Your task to perform on an android device: uninstall "WhatsApp Messenger" Image 0: 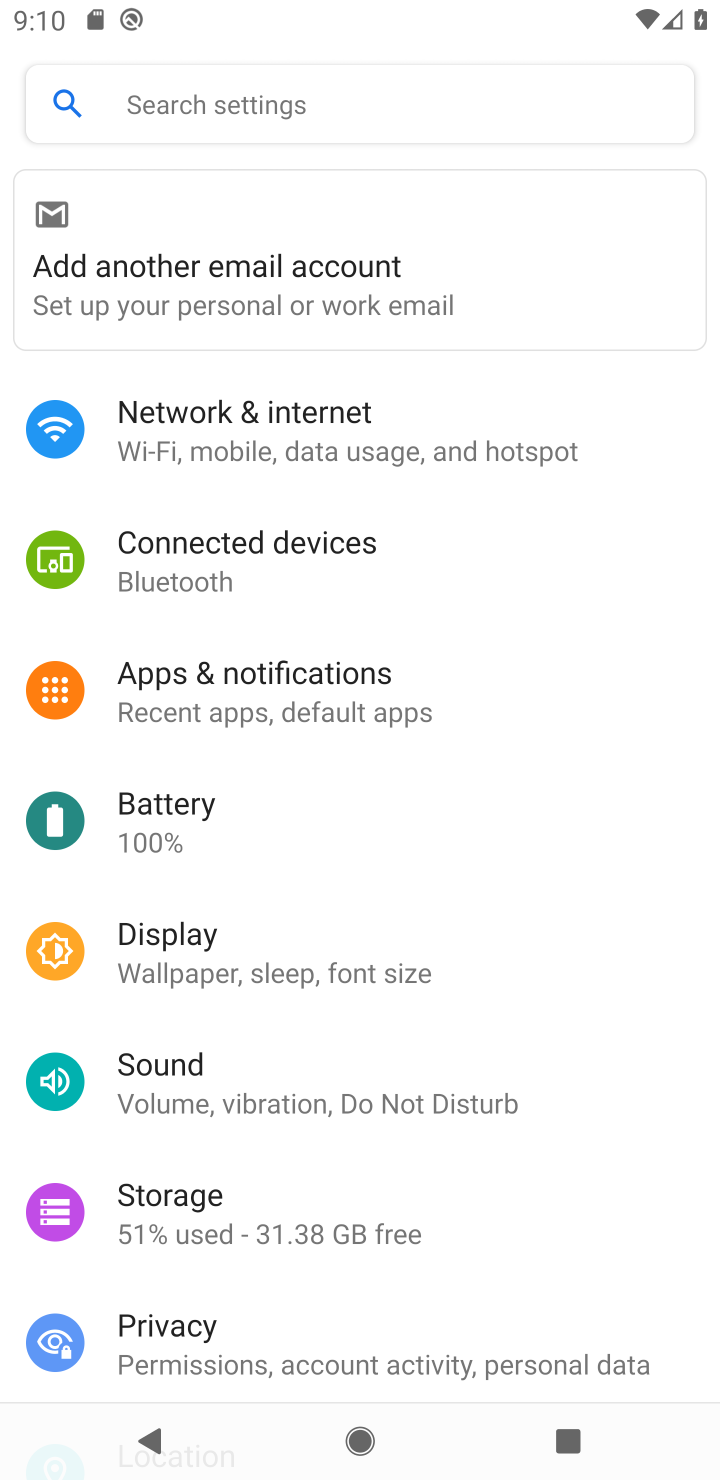
Step 0: press back button
Your task to perform on an android device: uninstall "WhatsApp Messenger" Image 1: 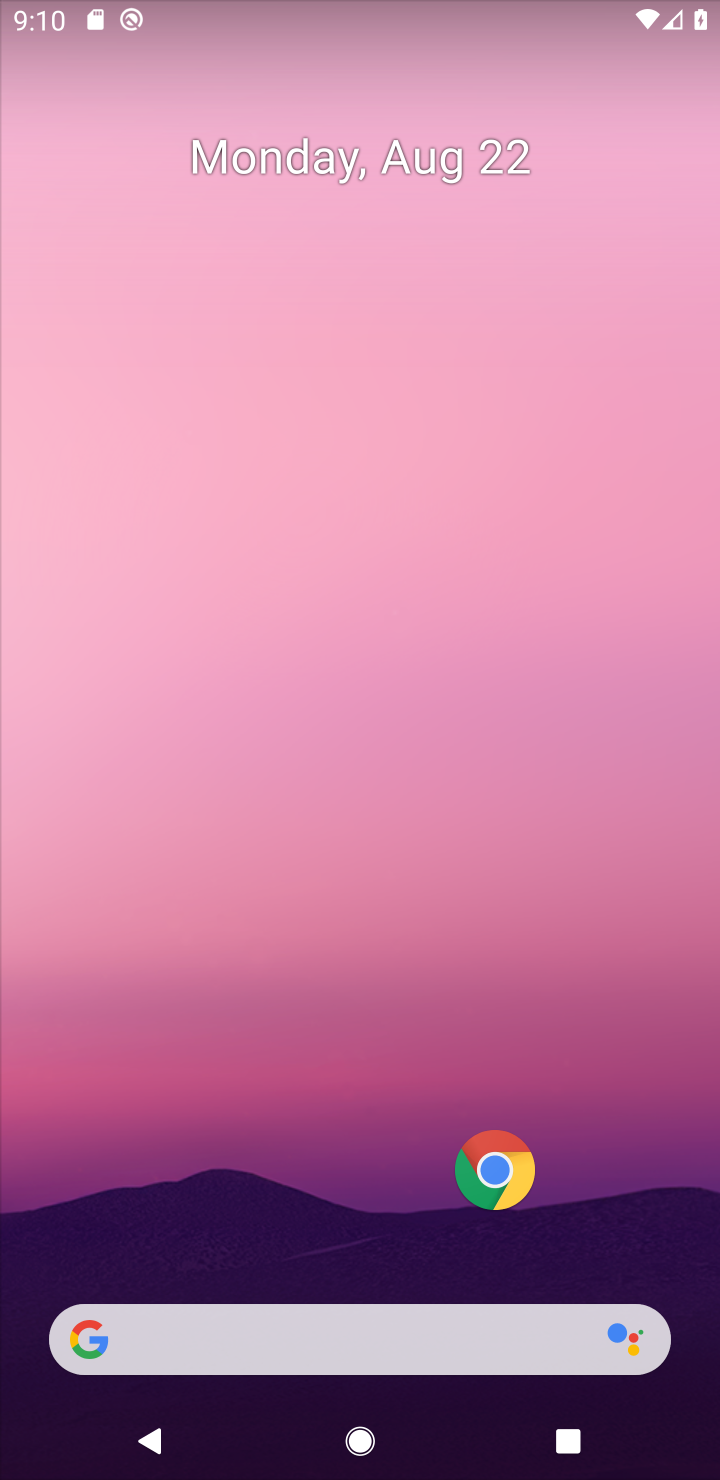
Step 1: drag from (232, 1121) to (365, 39)
Your task to perform on an android device: uninstall "WhatsApp Messenger" Image 2: 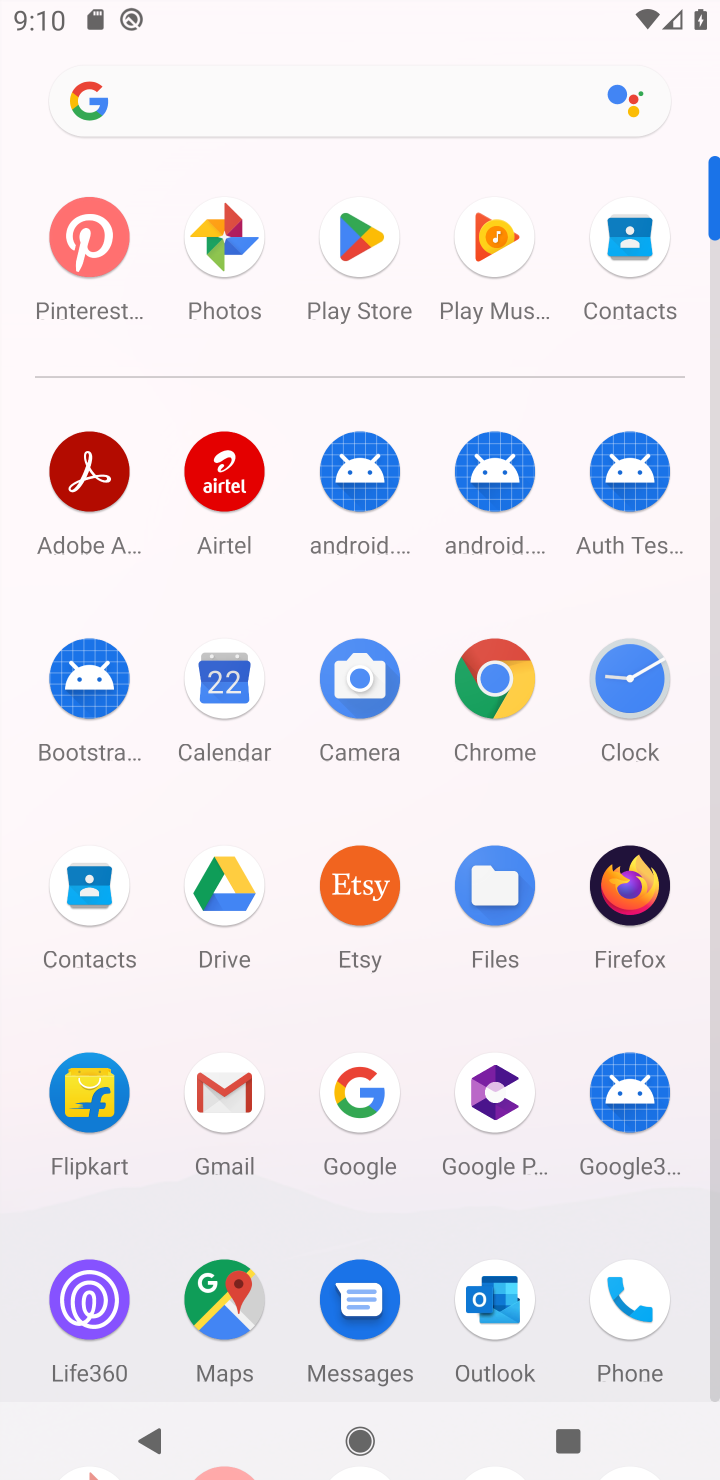
Step 2: click (358, 242)
Your task to perform on an android device: uninstall "WhatsApp Messenger" Image 3: 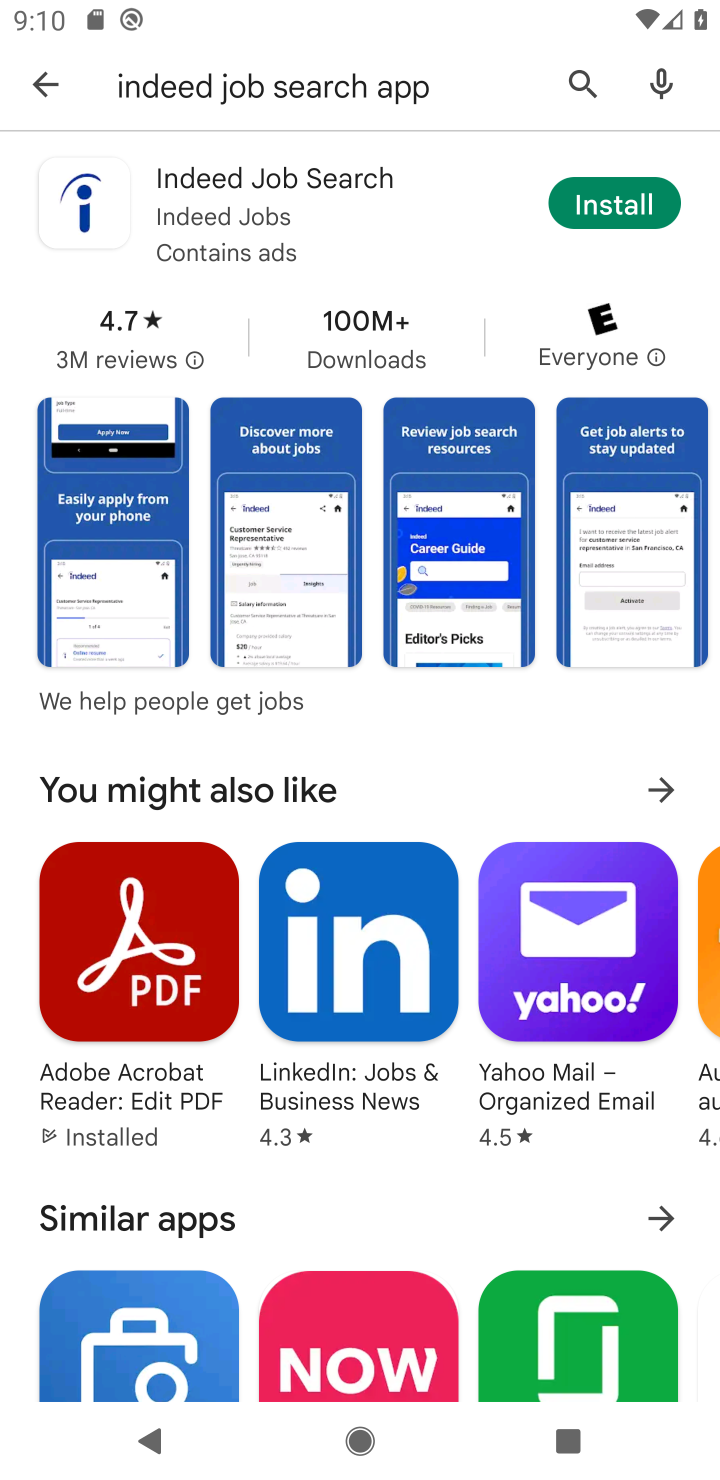
Step 3: click (584, 80)
Your task to perform on an android device: uninstall "WhatsApp Messenger" Image 4: 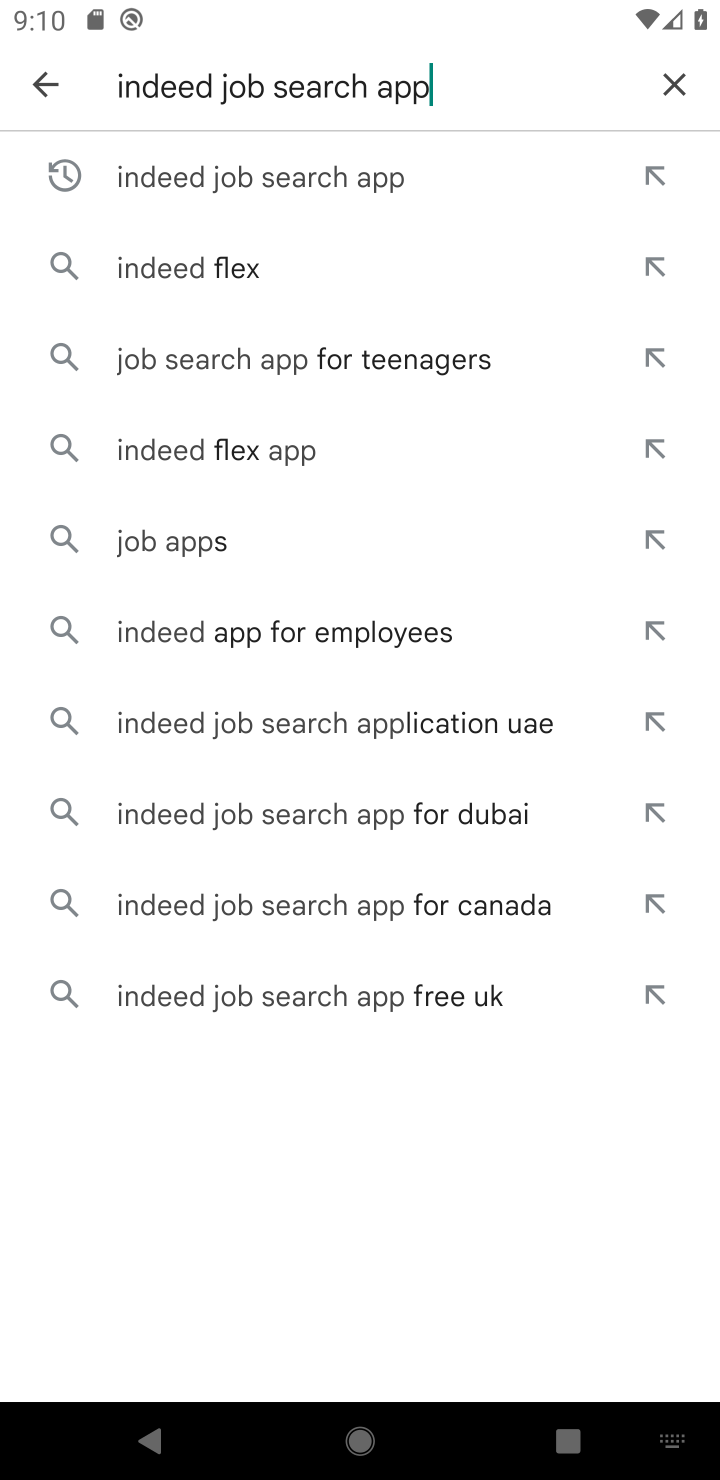
Step 4: click (677, 73)
Your task to perform on an android device: uninstall "WhatsApp Messenger" Image 5: 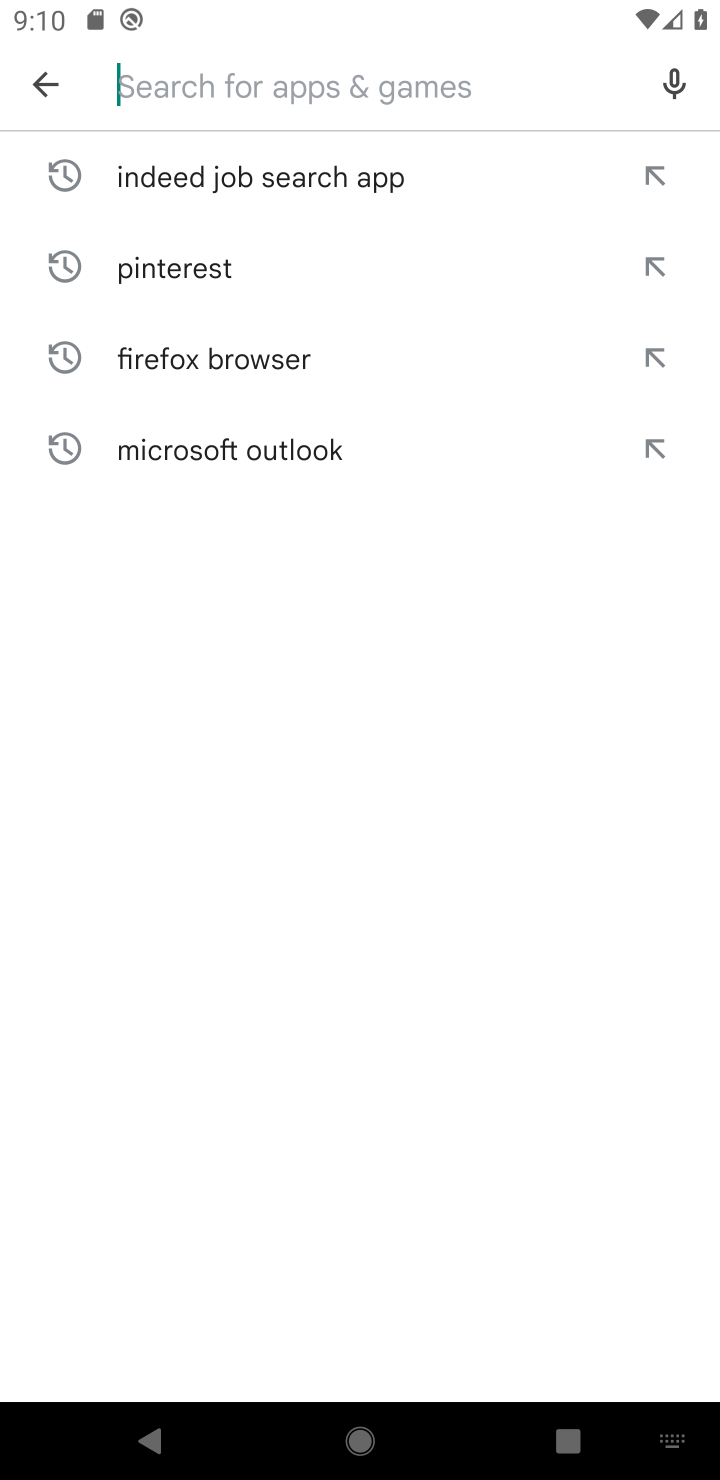
Step 5: click (323, 85)
Your task to perform on an android device: uninstall "WhatsApp Messenger" Image 6: 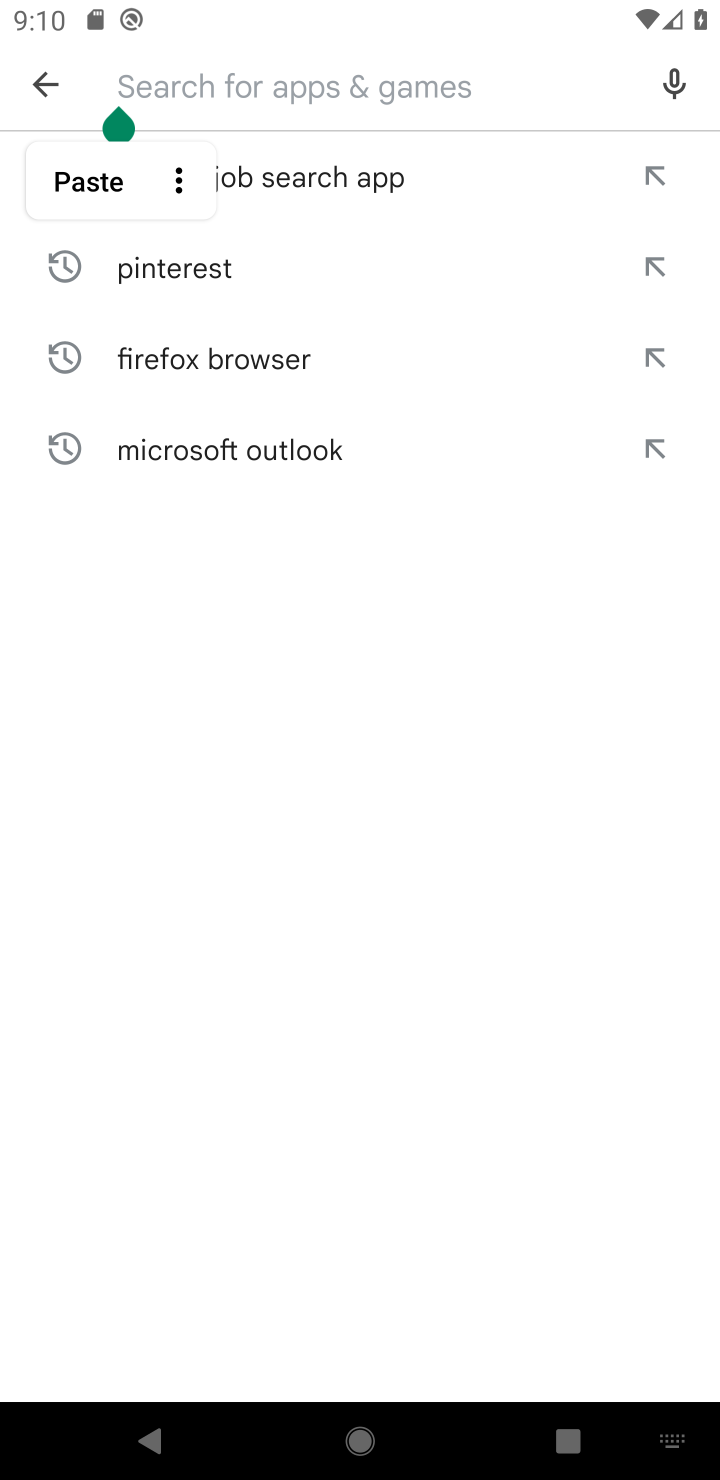
Step 6: type "WhatsApp Messenger"
Your task to perform on an android device: uninstall "WhatsApp Messenger" Image 7: 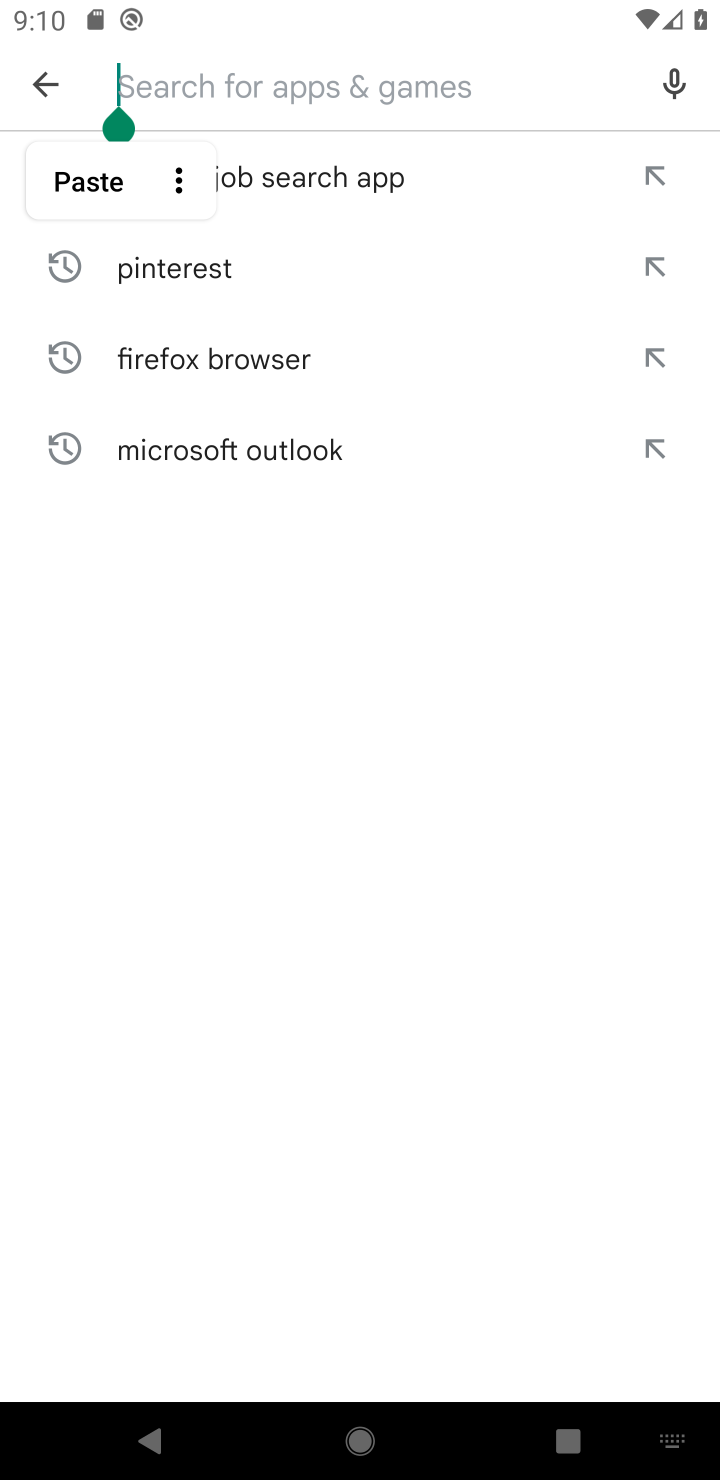
Step 7: click (510, 990)
Your task to perform on an android device: uninstall "WhatsApp Messenger" Image 8: 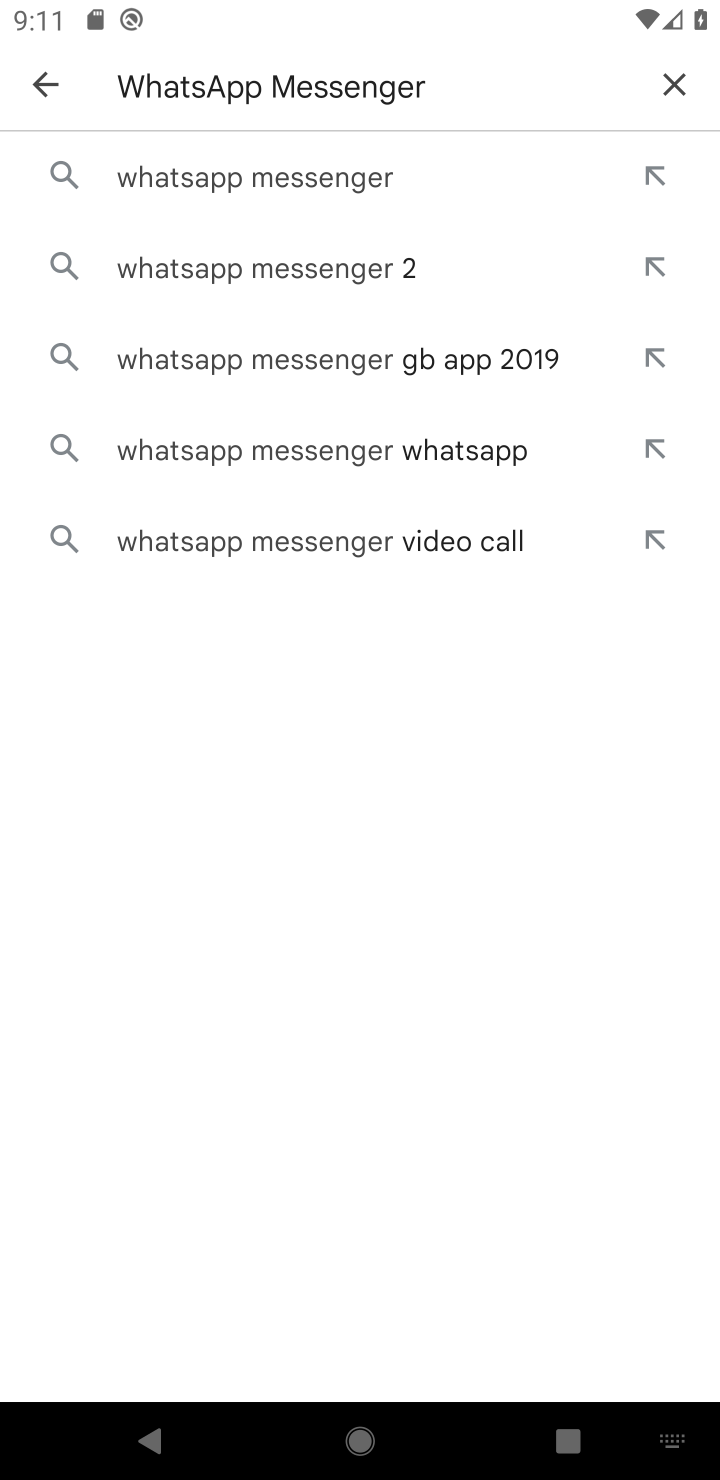
Step 8: click (365, 183)
Your task to perform on an android device: uninstall "WhatsApp Messenger" Image 9: 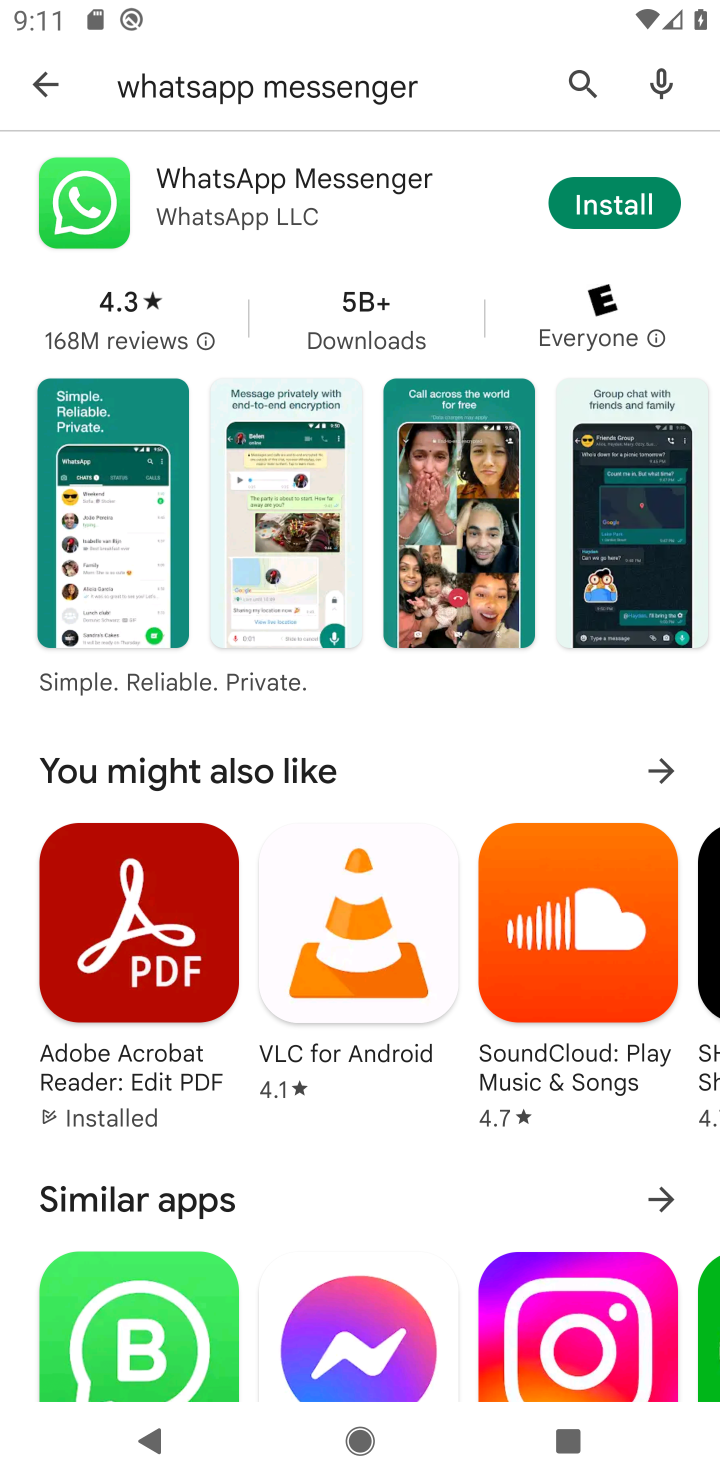
Step 9: click (279, 177)
Your task to perform on an android device: uninstall "WhatsApp Messenger" Image 10: 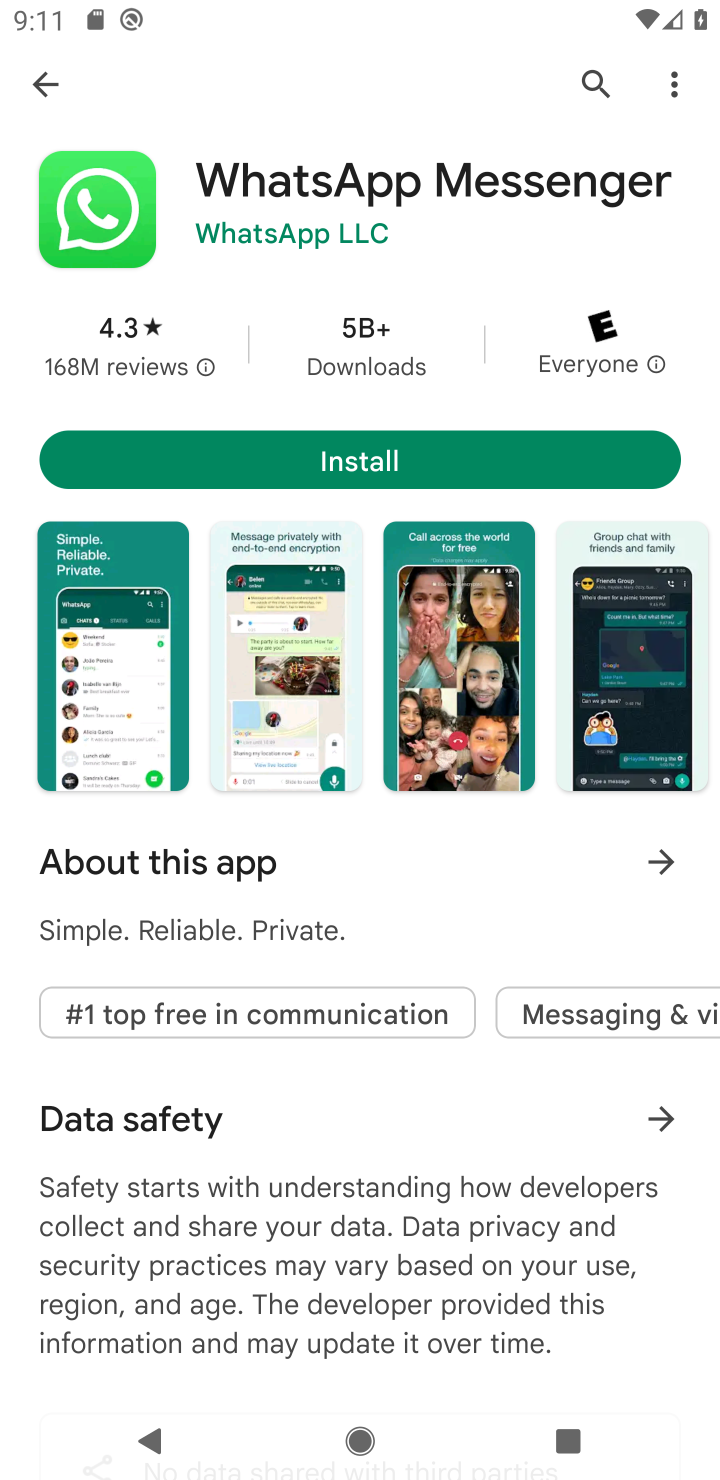
Step 10: task complete